Your task to perform on an android device: Go to wifi settings Image 0: 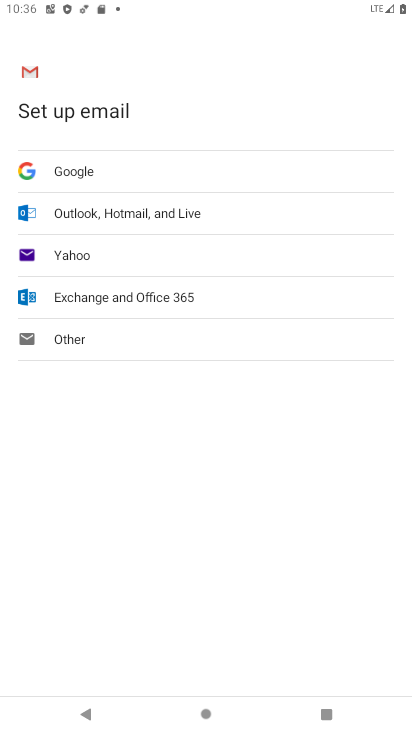
Step 0: press home button
Your task to perform on an android device: Go to wifi settings Image 1: 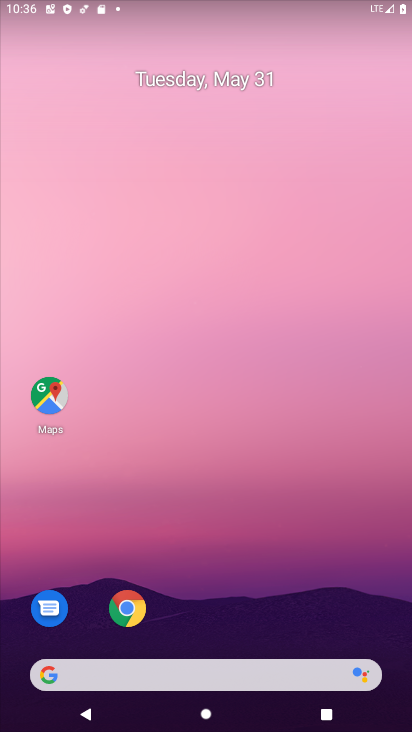
Step 1: drag from (220, 638) to (225, 85)
Your task to perform on an android device: Go to wifi settings Image 2: 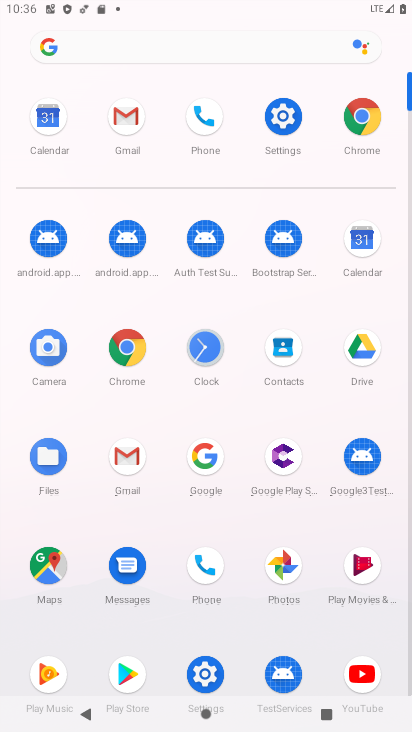
Step 2: click (291, 116)
Your task to perform on an android device: Go to wifi settings Image 3: 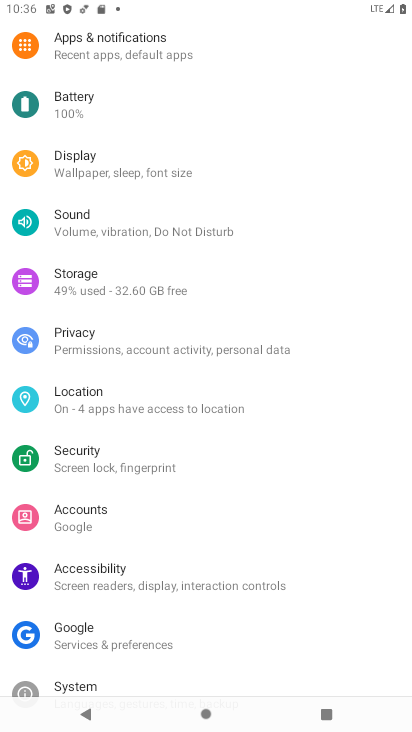
Step 3: drag from (177, 101) to (128, 680)
Your task to perform on an android device: Go to wifi settings Image 4: 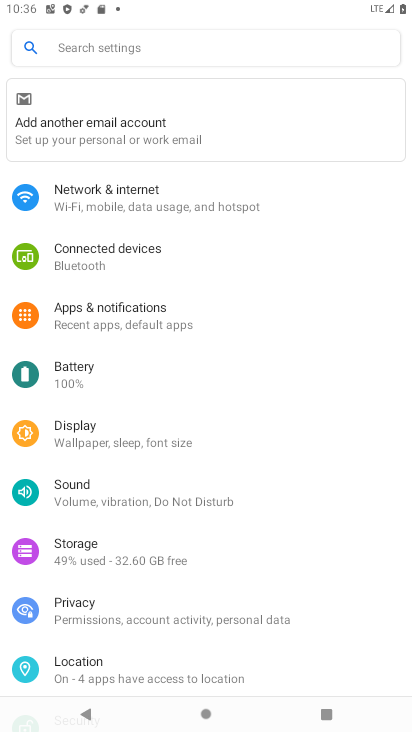
Step 4: click (78, 208)
Your task to perform on an android device: Go to wifi settings Image 5: 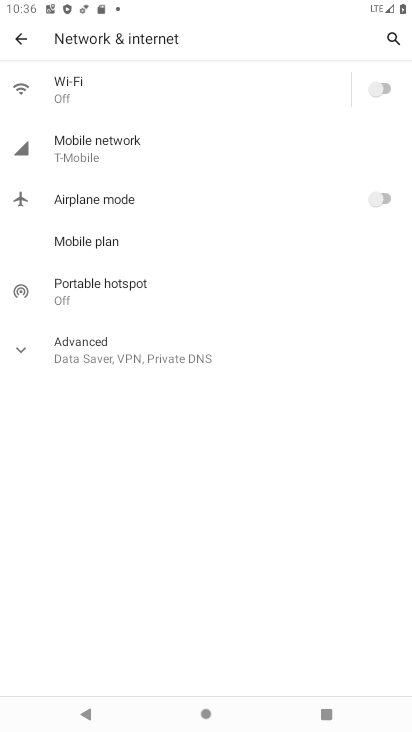
Step 5: click (71, 91)
Your task to perform on an android device: Go to wifi settings Image 6: 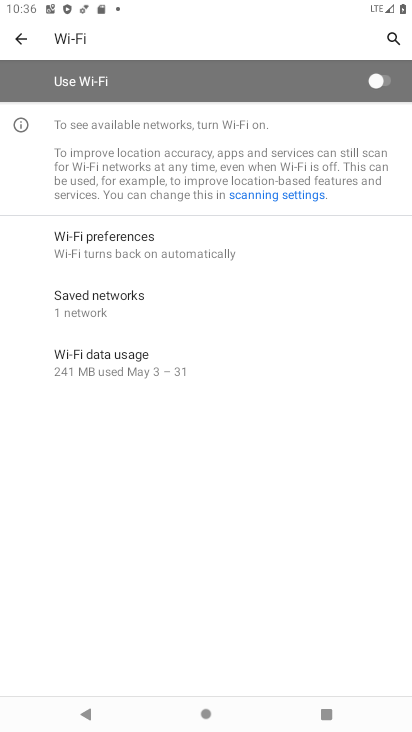
Step 6: task complete